Your task to perform on an android device: find which apps use the phone's location Image 0: 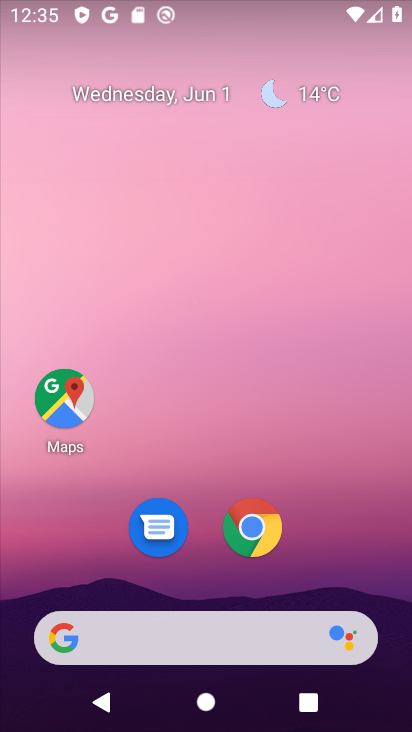
Step 0: click (209, 294)
Your task to perform on an android device: find which apps use the phone's location Image 1: 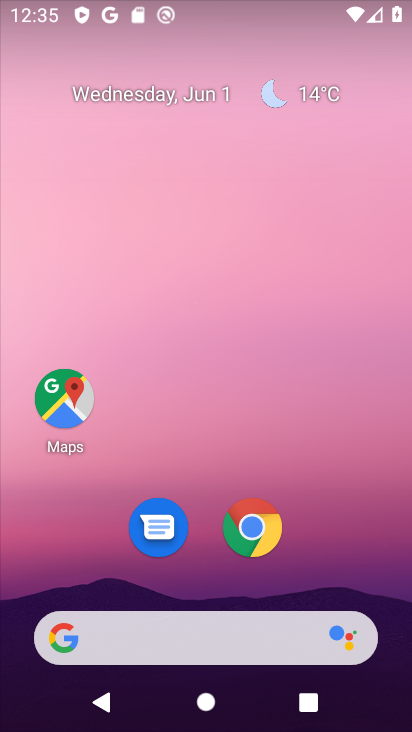
Step 1: drag from (237, 622) to (173, 35)
Your task to perform on an android device: find which apps use the phone's location Image 2: 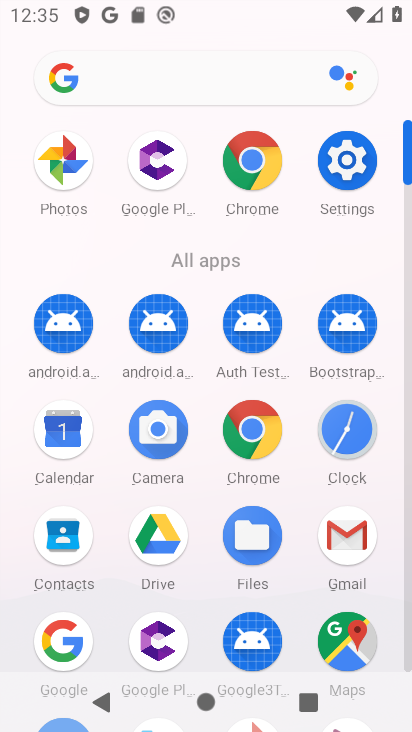
Step 2: click (357, 184)
Your task to perform on an android device: find which apps use the phone's location Image 3: 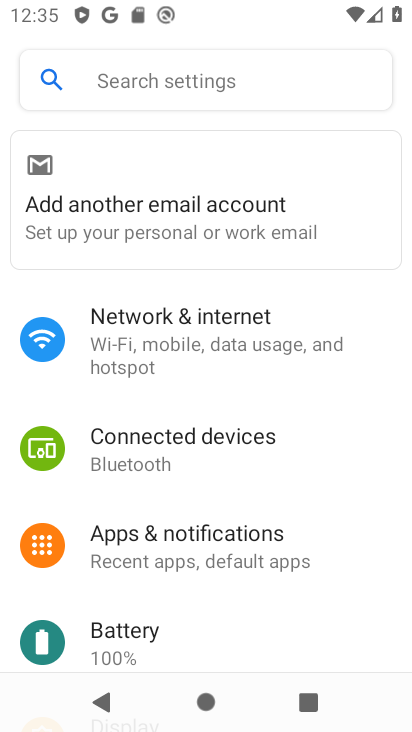
Step 3: drag from (220, 519) to (250, 166)
Your task to perform on an android device: find which apps use the phone's location Image 4: 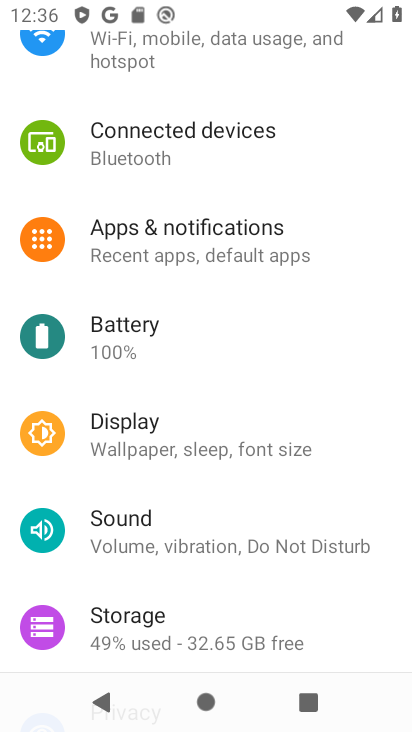
Step 4: drag from (186, 537) to (239, 257)
Your task to perform on an android device: find which apps use the phone's location Image 5: 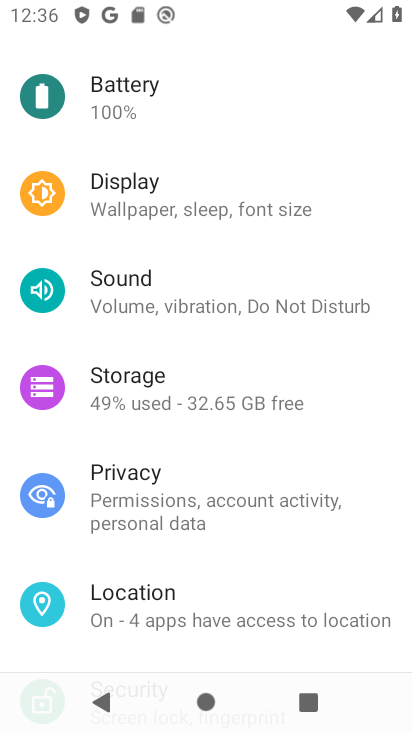
Step 5: click (202, 604)
Your task to perform on an android device: find which apps use the phone's location Image 6: 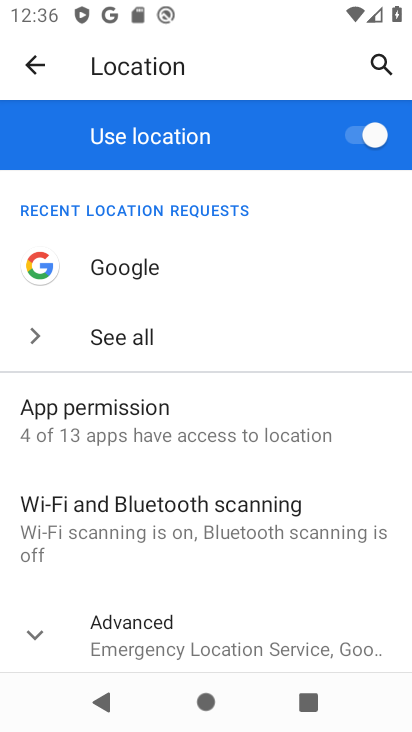
Step 6: drag from (206, 548) to (209, 445)
Your task to perform on an android device: find which apps use the phone's location Image 7: 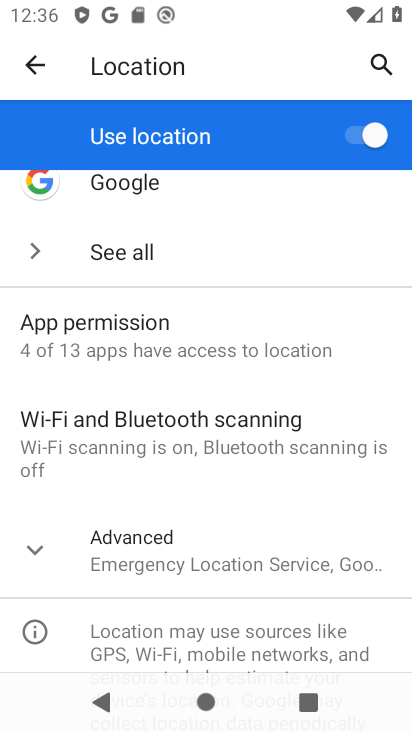
Step 7: click (204, 351)
Your task to perform on an android device: find which apps use the phone's location Image 8: 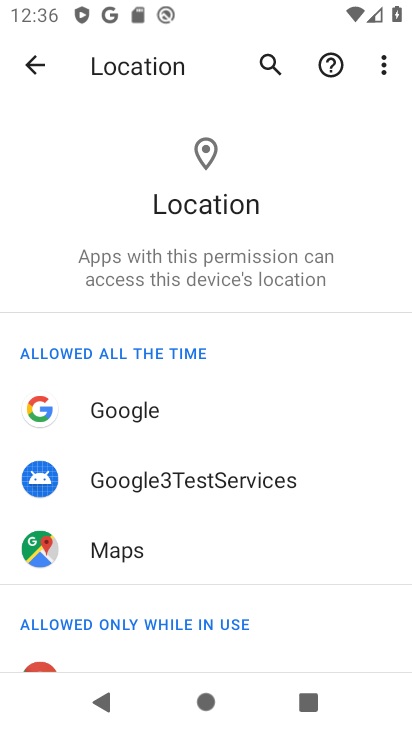
Step 8: task complete